Your task to perform on an android device: delete a single message in the gmail app Image 0: 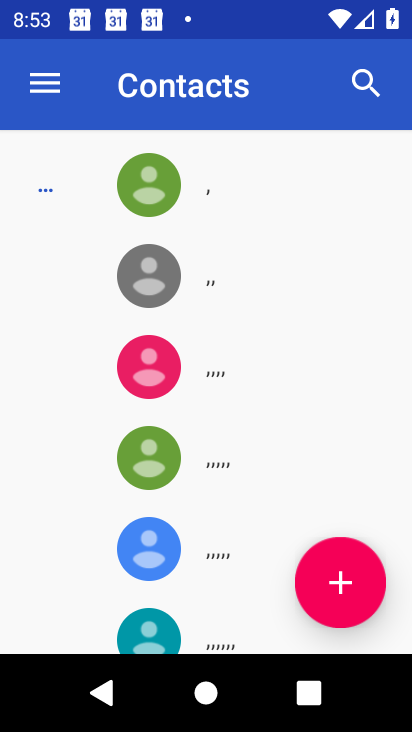
Step 0: press home button
Your task to perform on an android device: delete a single message in the gmail app Image 1: 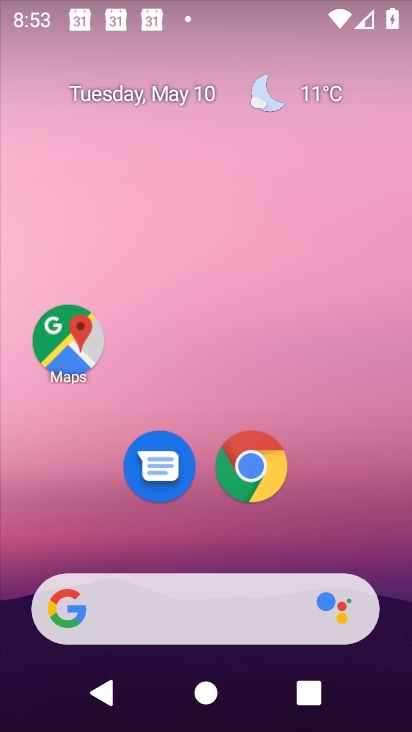
Step 1: drag from (210, 543) to (291, 0)
Your task to perform on an android device: delete a single message in the gmail app Image 2: 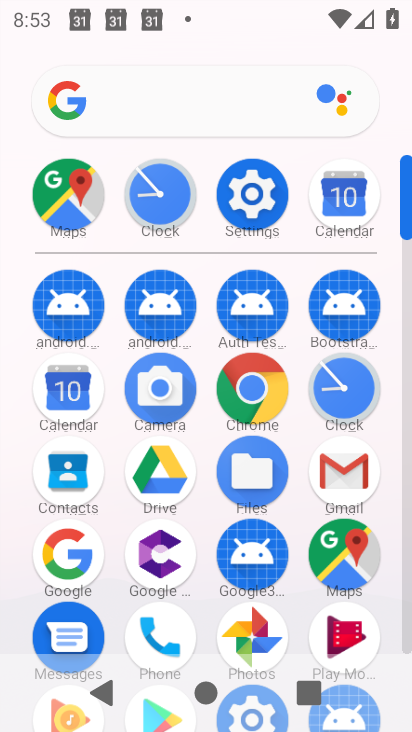
Step 2: click (344, 481)
Your task to perform on an android device: delete a single message in the gmail app Image 3: 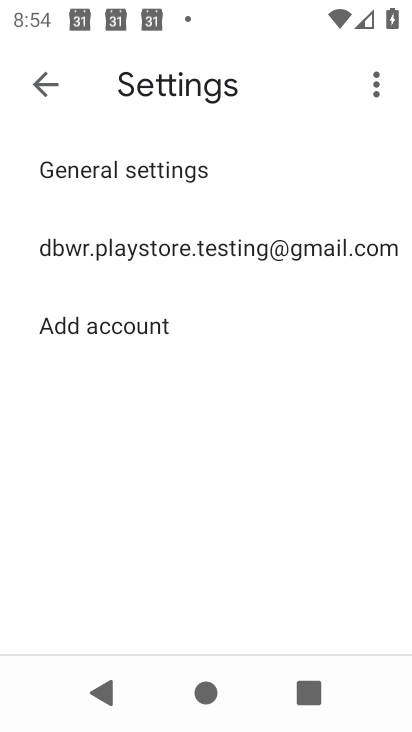
Step 3: click (51, 96)
Your task to perform on an android device: delete a single message in the gmail app Image 4: 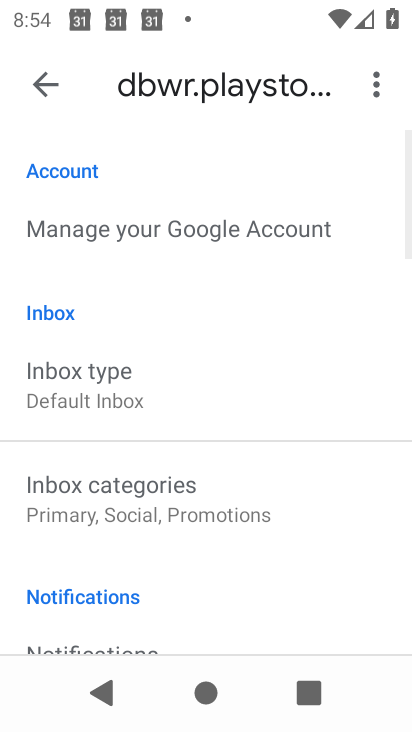
Step 4: click (57, 80)
Your task to perform on an android device: delete a single message in the gmail app Image 5: 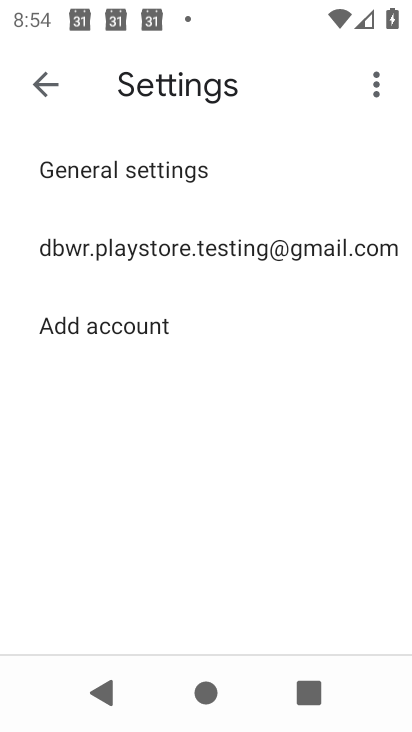
Step 5: click (53, 83)
Your task to perform on an android device: delete a single message in the gmail app Image 6: 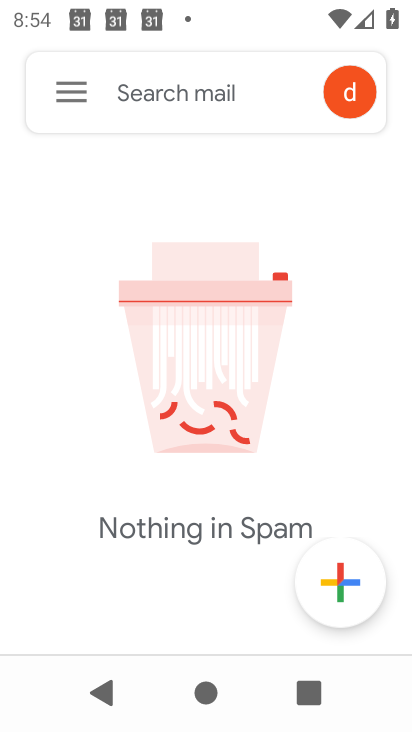
Step 6: click (67, 76)
Your task to perform on an android device: delete a single message in the gmail app Image 7: 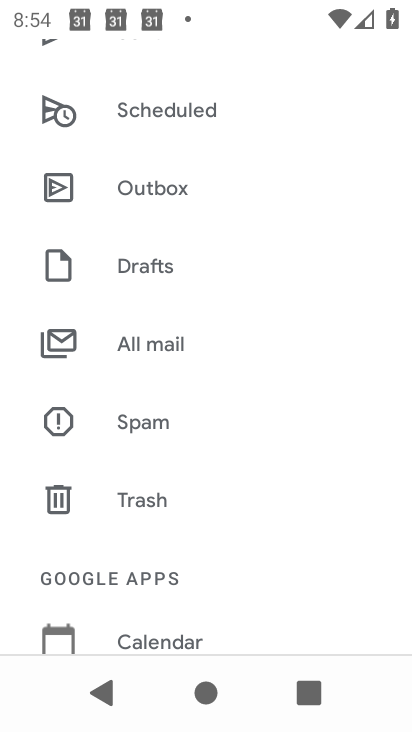
Step 7: click (146, 354)
Your task to perform on an android device: delete a single message in the gmail app Image 8: 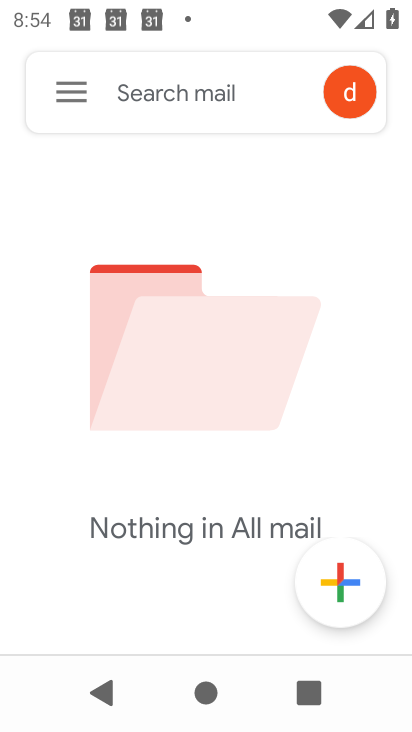
Step 8: task complete